Your task to perform on an android device: Open calendar and show me the third week of next month Image 0: 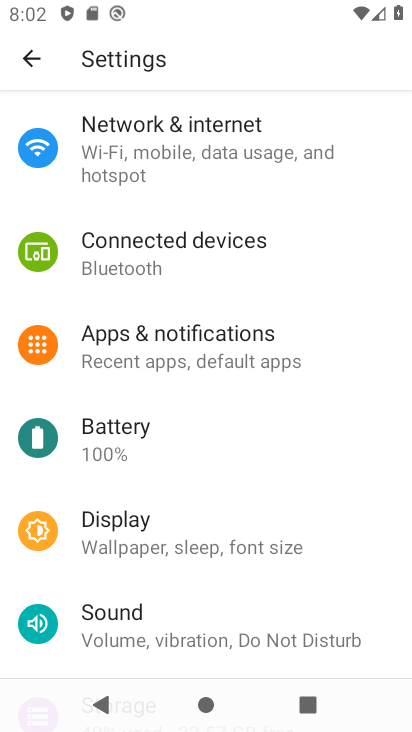
Step 0: task complete